Your task to perform on an android device: Go to settings Image 0: 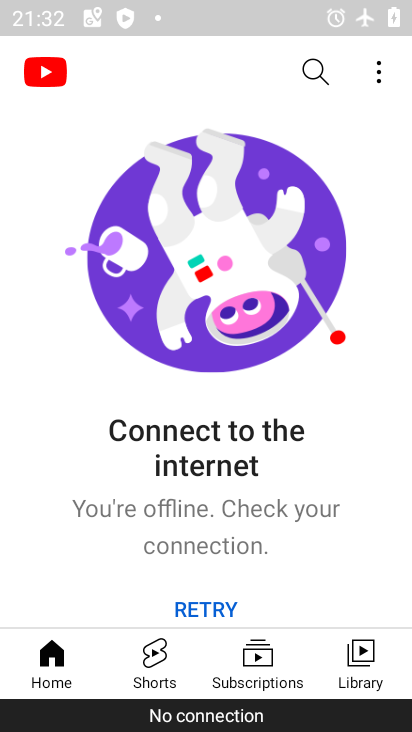
Step 0: press home button
Your task to perform on an android device: Go to settings Image 1: 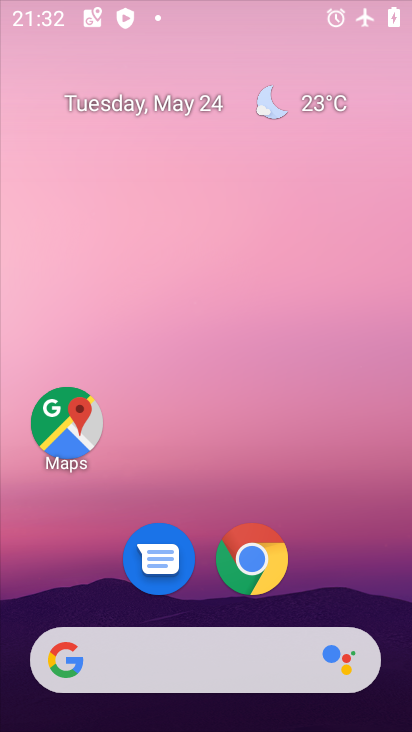
Step 1: drag from (327, 534) to (280, 127)
Your task to perform on an android device: Go to settings Image 2: 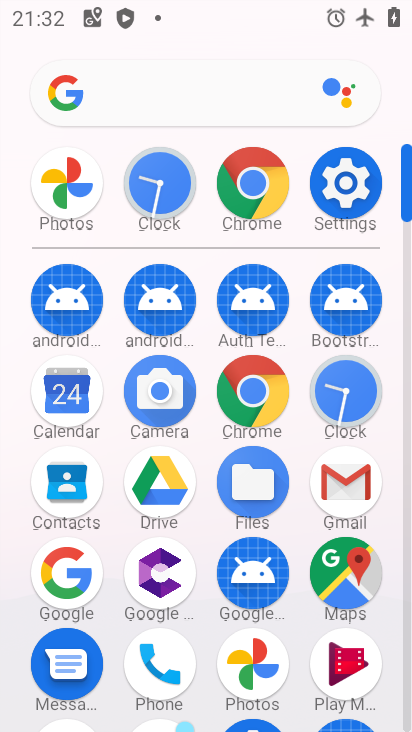
Step 2: click (338, 181)
Your task to perform on an android device: Go to settings Image 3: 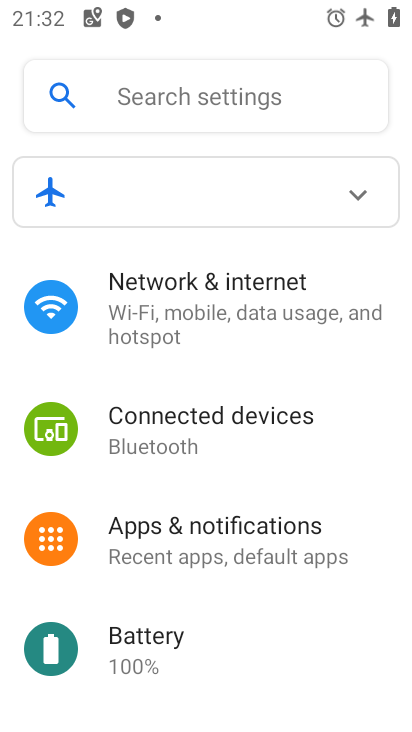
Step 3: task complete